Your task to perform on an android device: Show me popular videos on Youtube Image 0: 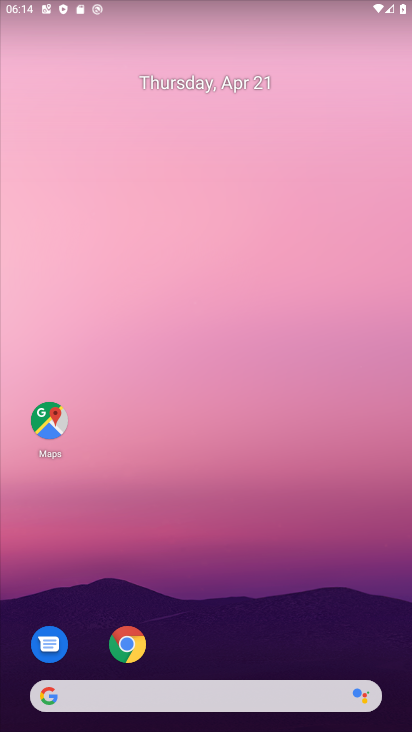
Step 0: drag from (304, 603) to (346, 230)
Your task to perform on an android device: Show me popular videos on Youtube Image 1: 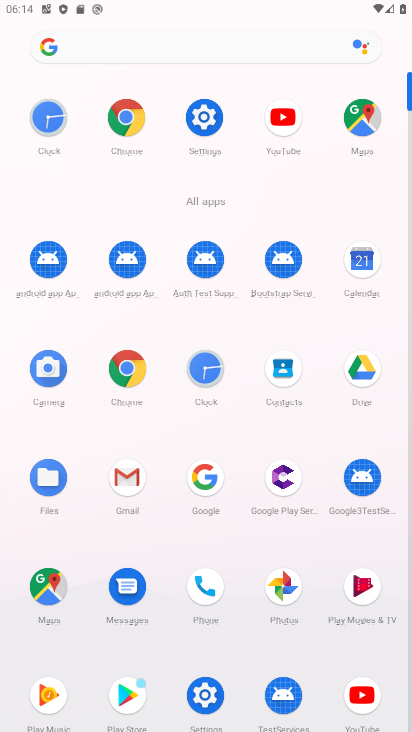
Step 1: click (280, 112)
Your task to perform on an android device: Show me popular videos on Youtube Image 2: 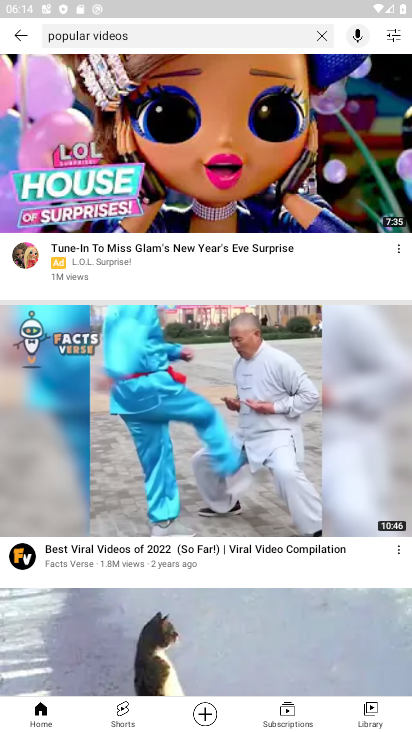
Step 2: task complete